Your task to perform on an android device: turn off location Image 0: 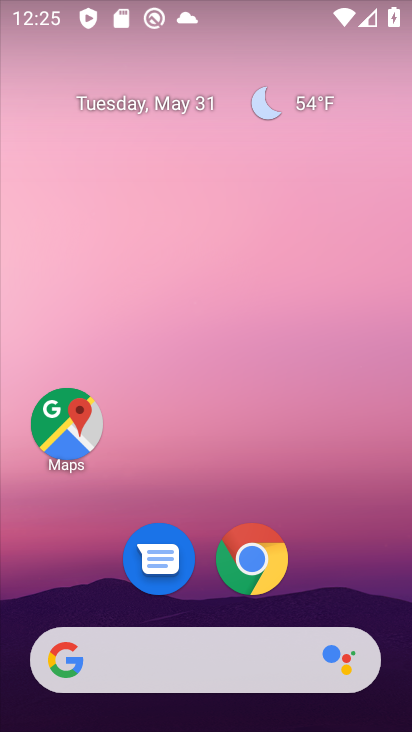
Step 0: drag from (149, 728) to (122, 93)
Your task to perform on an android device: turn off location Image 1: 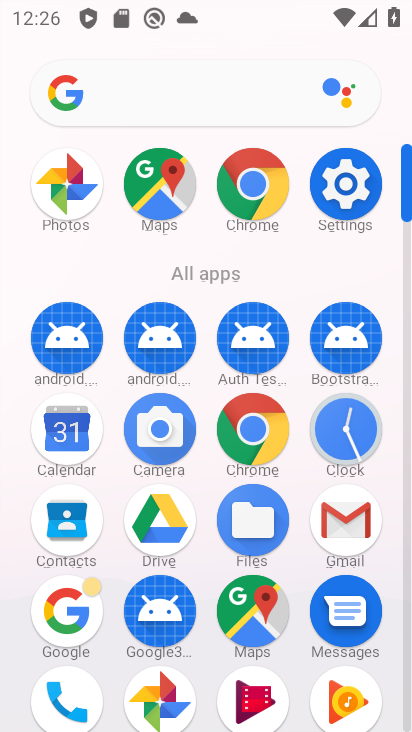
Step 1: click (340, 174)
Your task to perform on an android device: turn off location Image 2: 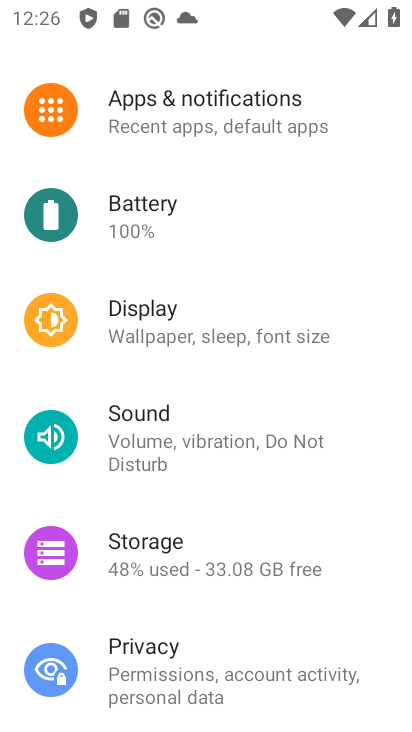
Step 2: drag from (267, 587) to (222, 204)
Your task to perform on an android device: turn off location Image 3: 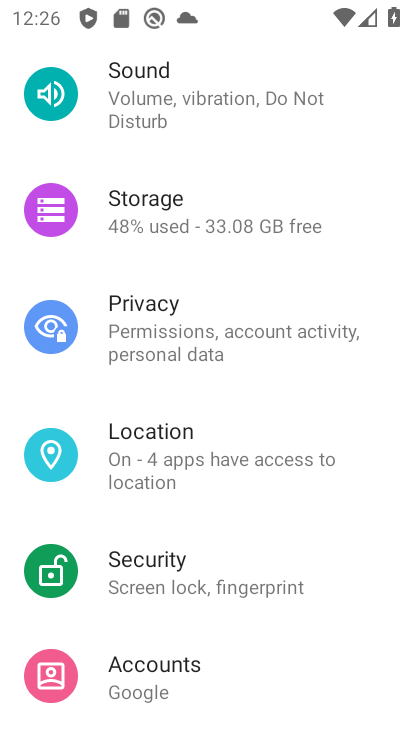
Step 3: click (187, 465)
Your task to perform on an android device: turn off location Image 4: 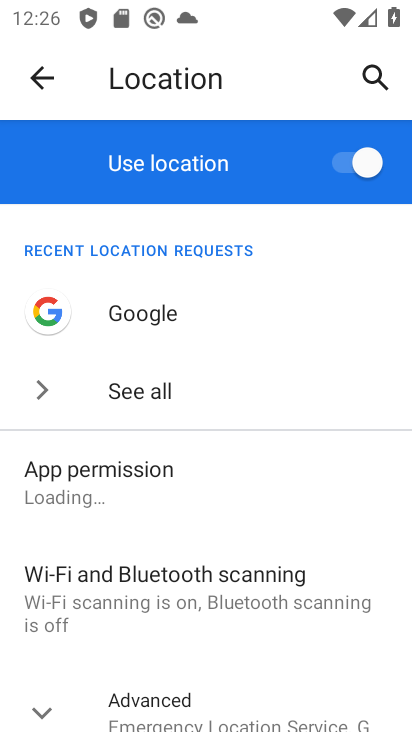
Step 4: click (363, 163)
Your task to perform on an android device: turn off location Image 5: 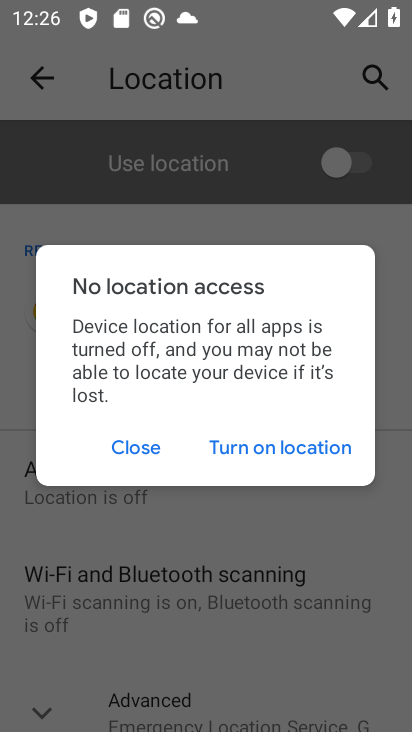
Step 5: click (151, 444)
Your task to perform on an android device: turn off location Image 6: 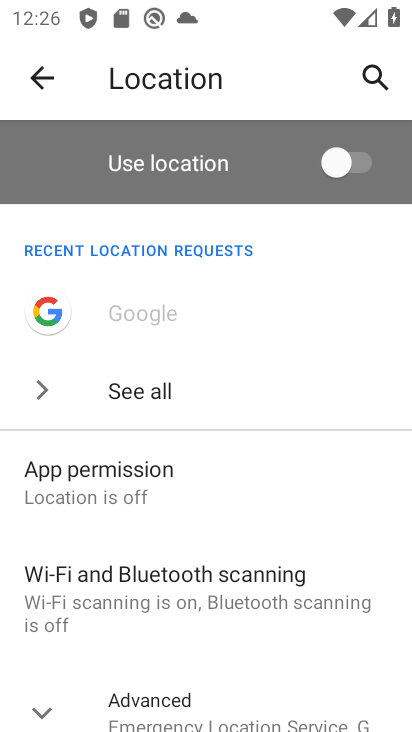
Step 6: task complete